Your task to perform on an android device: toggle priority inbox in the gmail app Image 0: 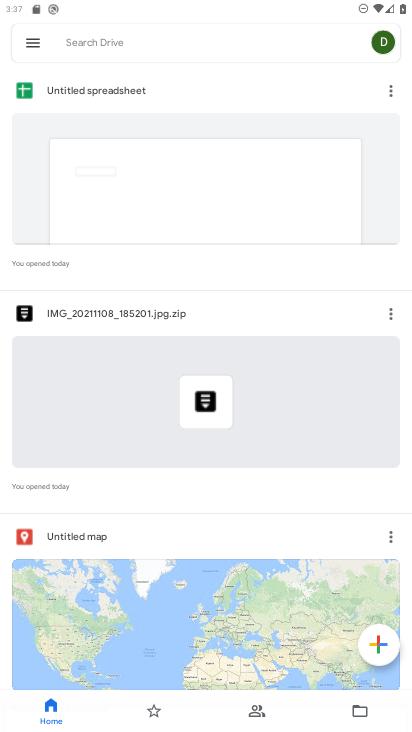
Step 0: press home button
Your task to perform on an android device: toggle priority inbox in the gmail app Image 1: 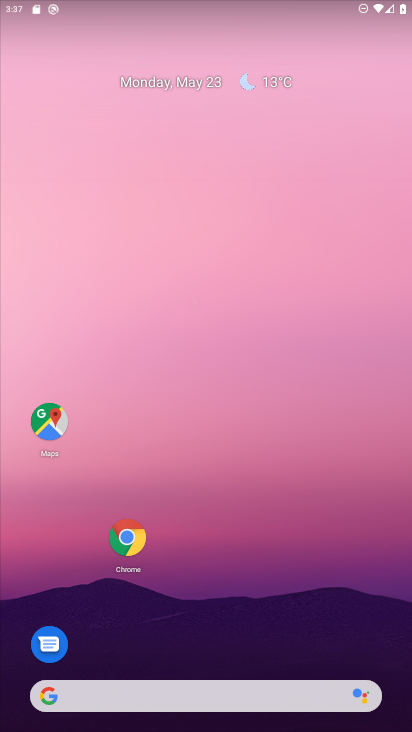
Step 1: drag from (259, 633) to (255, 184)
Your task to perform on an android device: toggle priority inbox in the gmail app Image 2: 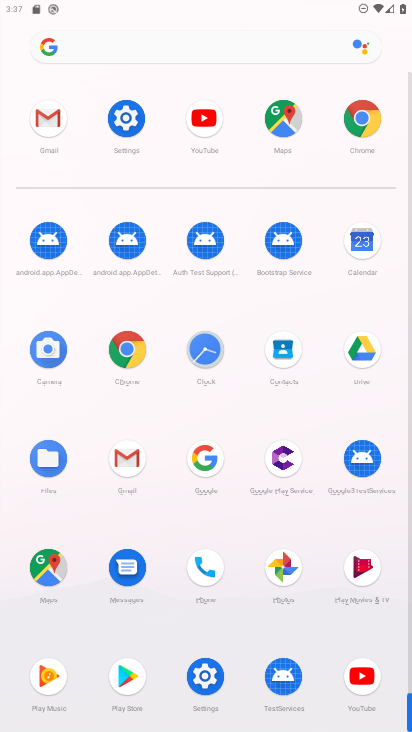
Step 2: click (52, 123)
Your task to perform on an android device: toggle priority inbox in the gmail app Image 3: 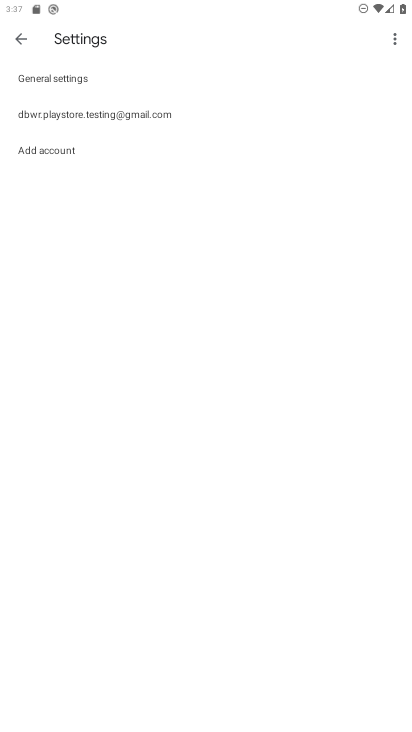
Step 3: click (100, 113)
Your task to perform on an android device: toggle priority inbox in the gmail app Image 4: 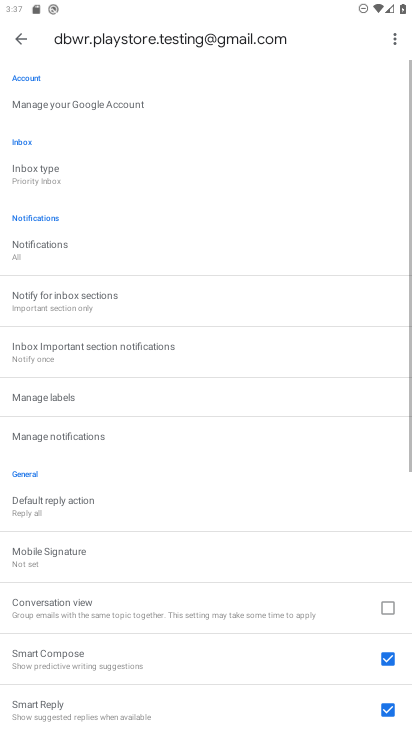
Step 4: click (50, 171)
Your task to perform on an android device: toggle priority inbox in the gmail app Image 5: 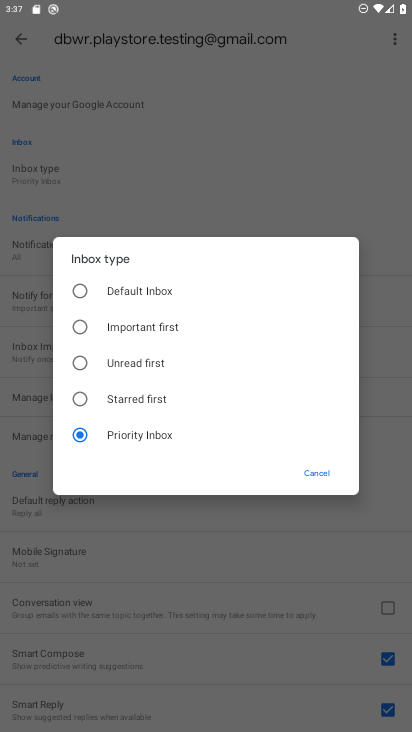
Step 5: click (138, 298)
Your task to perform on an android device: toggle priority inbox in the gmail app Image 6: 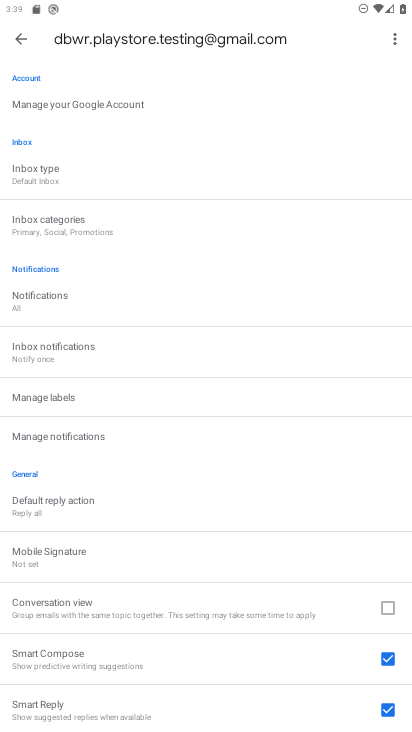
Step 6: task complete